Your task to perform on an android device: toggle wifi Image 0: 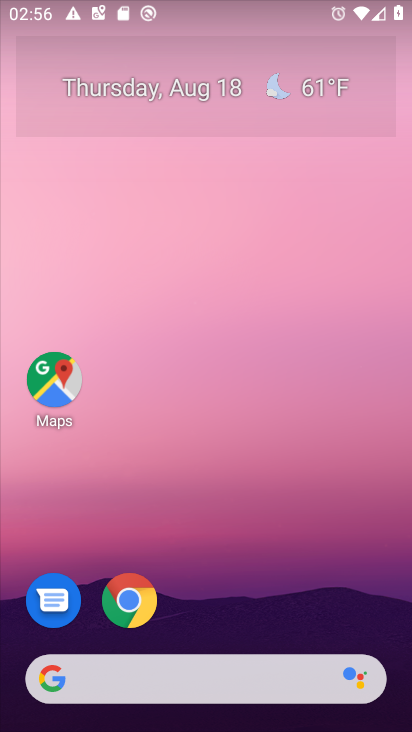
Step 0: press home button
Your task to perform on an android device: toggle wifi Image 1: 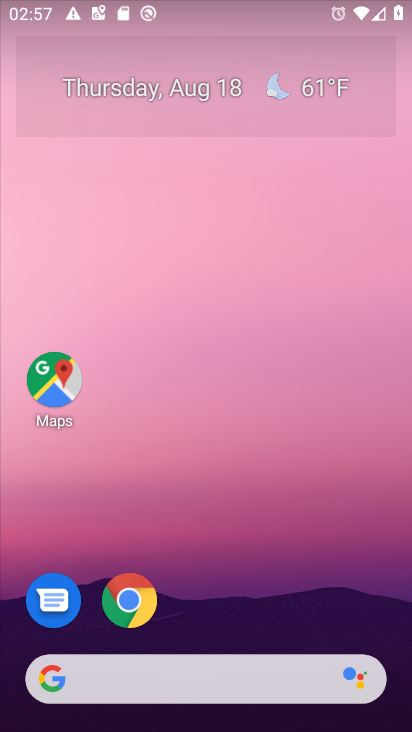
Step 1: drag from (201, 11) to (203, 548)
Your task to perform on an android device: toggle wifi Image 2: 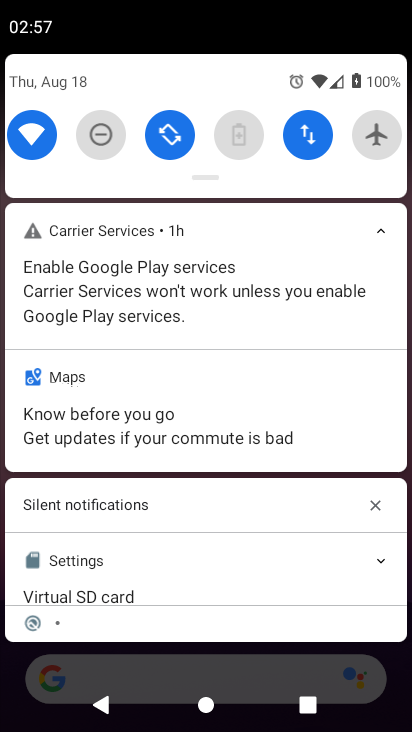
Step 2: click (24, 139)
Your task to perform on an android device: toggle wifi Image 3: 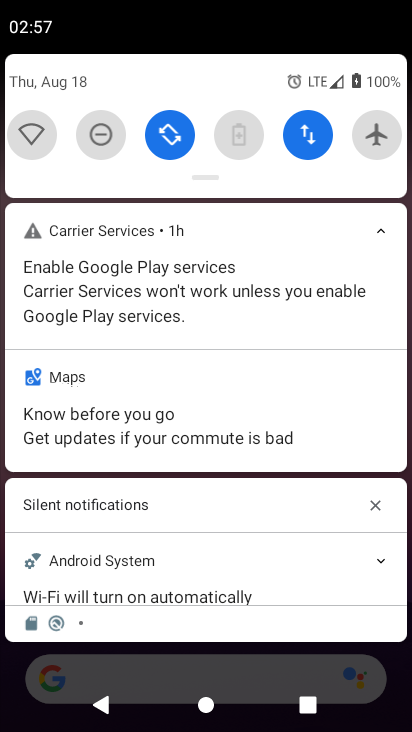
Step 3: task complete